Your task to perform on an android device: Search for Mexican restaurants on Maps Image 0: 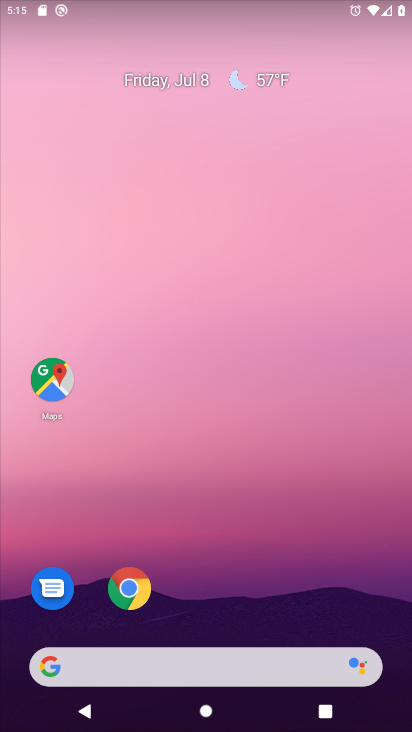
Step 0: drag from (227, 531) to (202, 322)
Your task to perform on an android device: Search for Mexican restaurants on Maps Image 1: 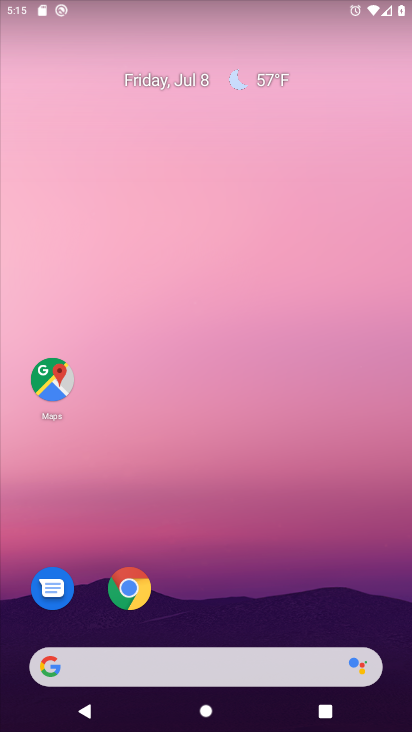
Step 1: drag from (290, 691) to (170, 186)
Your task to perform on an android device: Search for Mexican restaurants on Maps Image 2: 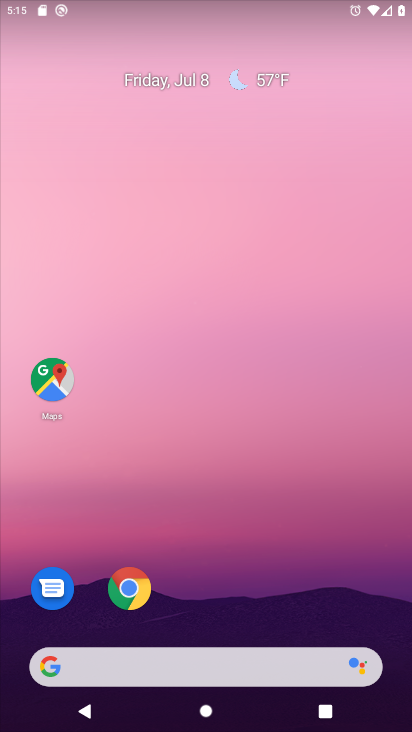
Step 2: drag from (285, 545) to (171, 99)
Your task to perform on an android device: Search for Mexican restaurants on Maps Image 3: 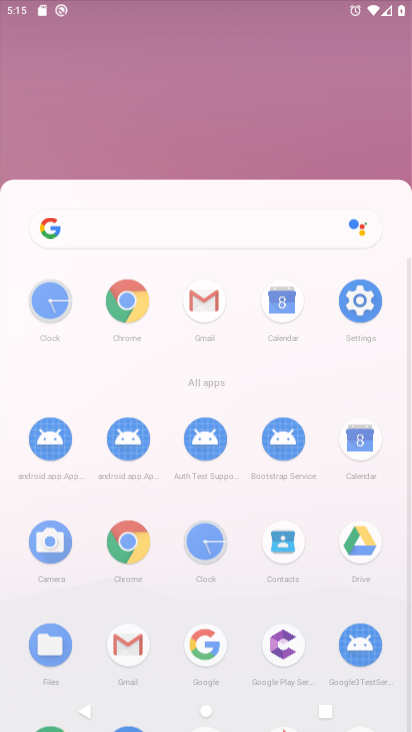
Step 3: drag from (283, 427) to (210, 45)
Your task to perform on an android device: Search for Mexican restaurants on Maps Image 4: 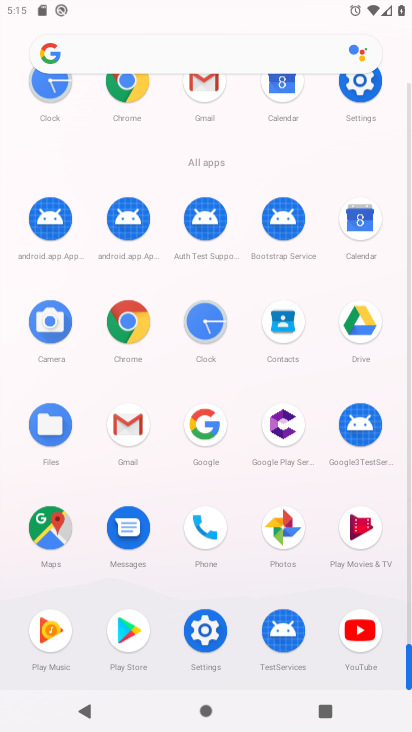
Step 4: drag from (193, 305) to (166, 121)
Your task to perform on an android device: Search for Mexican restaurants on Maps Image 5: 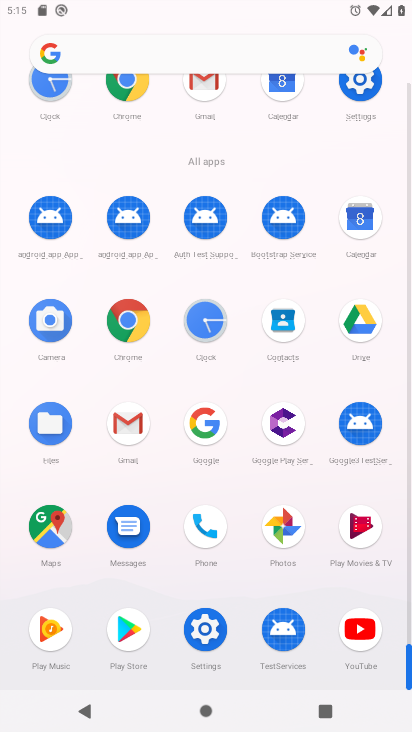
Step 5: click (43, 576)
Your task to perform on an android device: Search for Mexican restaurants on Maps Image 6: 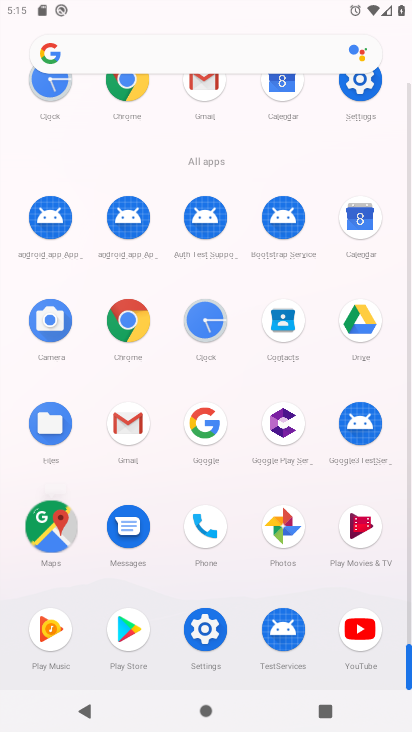
Step 6: click (50, 506)
Your task to perform on an android device: Search for Mexican restaurants on Maps Image 7: 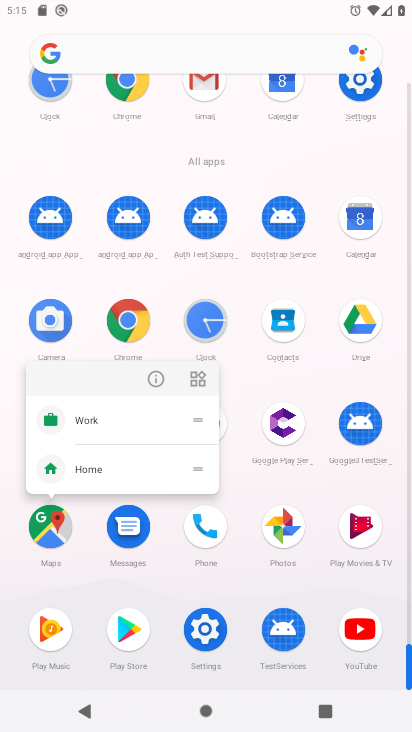
Step 7: click (51, 507)
Your task to perform on an android device: Search for Mexican restaurants on Maps Image 8: 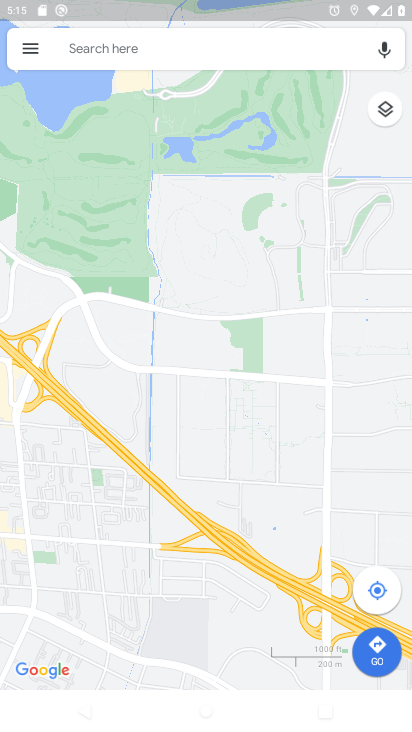
Step 8: click (93, 55)
Your task to perform on an android device: Search for Mexican restaurants on Maps Image 9: 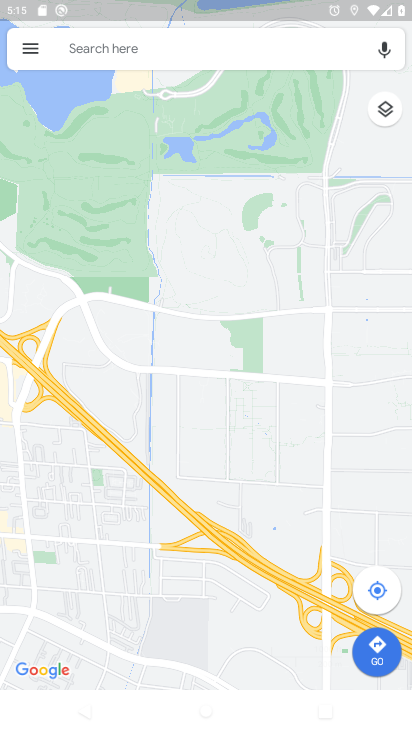
Step 9: click (102, 58)
Your task to perform on an android device: Search for Mexican restaurants on Maps Image 10: 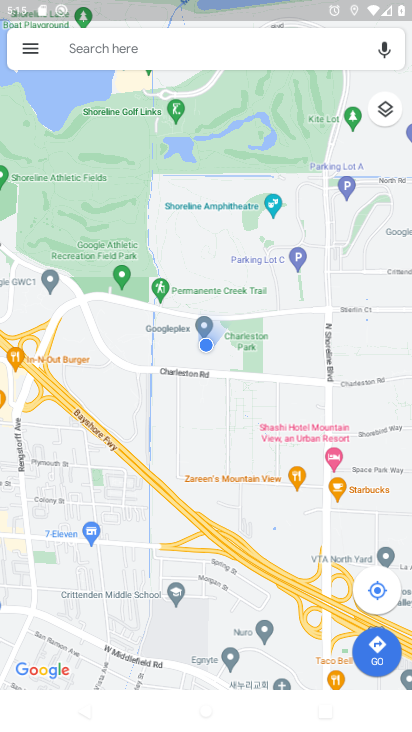
Step 10: click (106, 55)
Your task to perform on an android device: Search for Mexican restaurants on Maps Image 11: 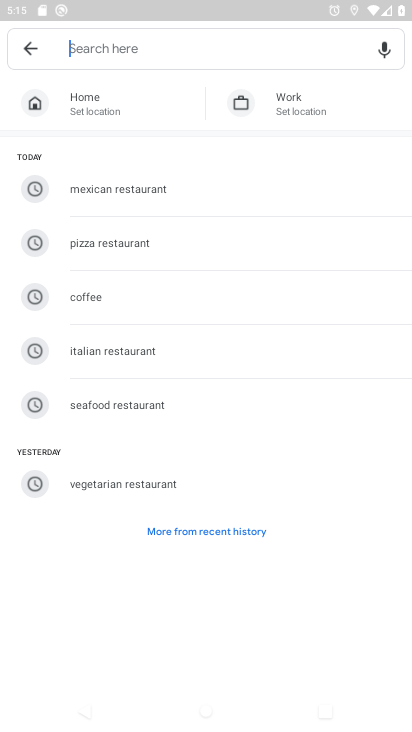
Step 11: click (110, 46)
Your task to perform on an android device: Search for Mexican restaurants on Maps Image 12: 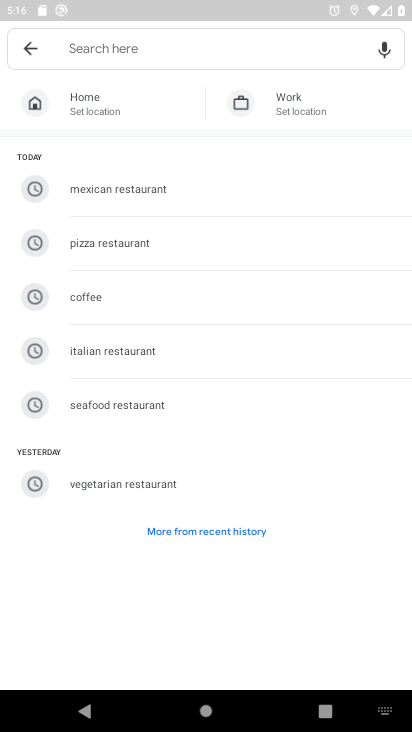
Step 12: type "mexican restaurants"
Your task to perform on an android device: Search for Mexican restaurants on Maps Image 13: 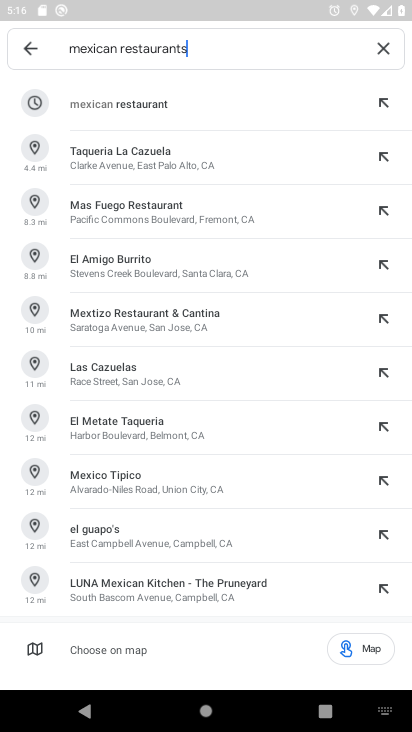
Step 13: click (127, 114)
Your task to perform on an android device: Search for Mexican restaurants on Maps Image 14: 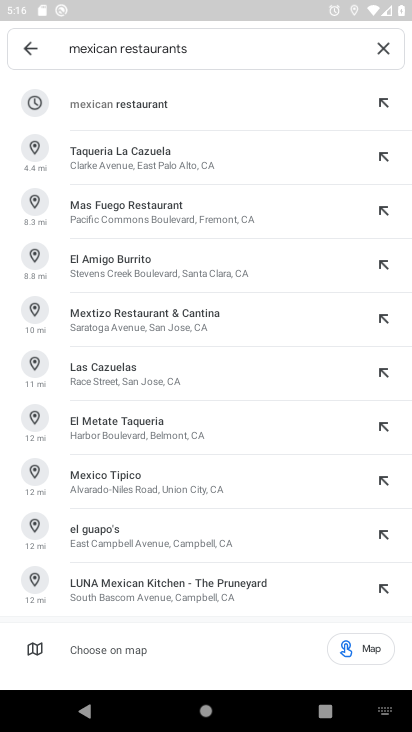
Step 14: click (138, 111)
Your task to perform on an android device: Search for Mexican restaurants on Maps Image 15: 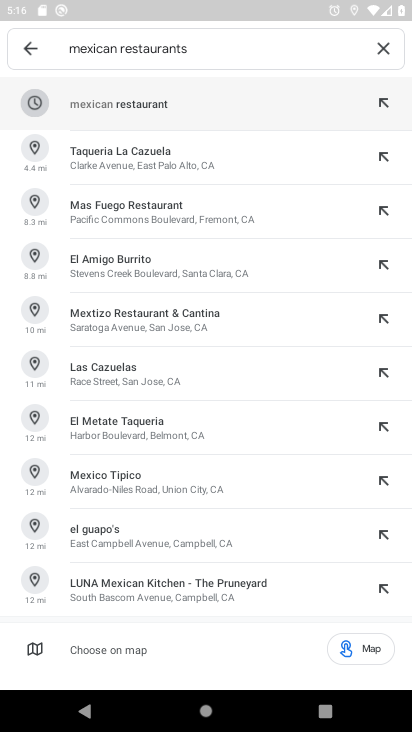
Step 15: click (151, 101)
Your task to perform on an android device: Search for Mexican restaurants on Maps Image 16: 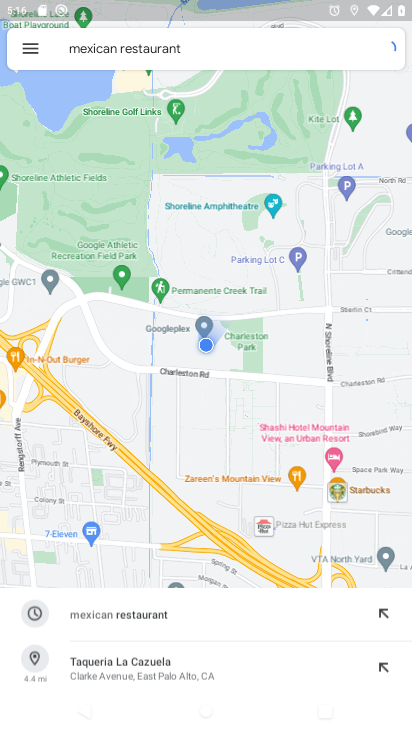
Step 16: click (151, 101)
Your task to perform on an android device: Search for Mexican restaurants on Maps Image 17: 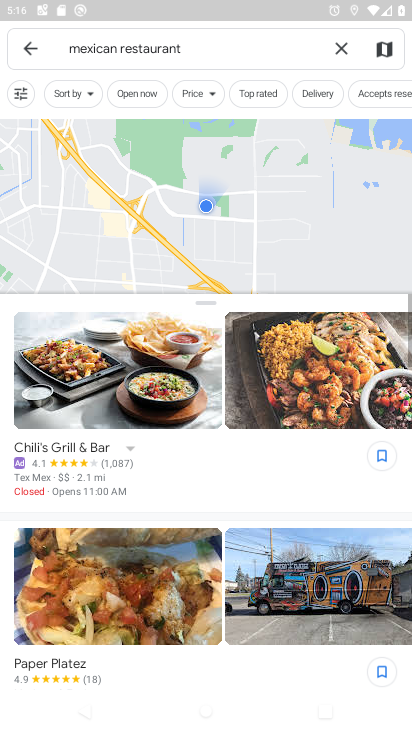
Step 17: task complete